Your task to perform on an android device: see creations saved in the google photos Image 0: 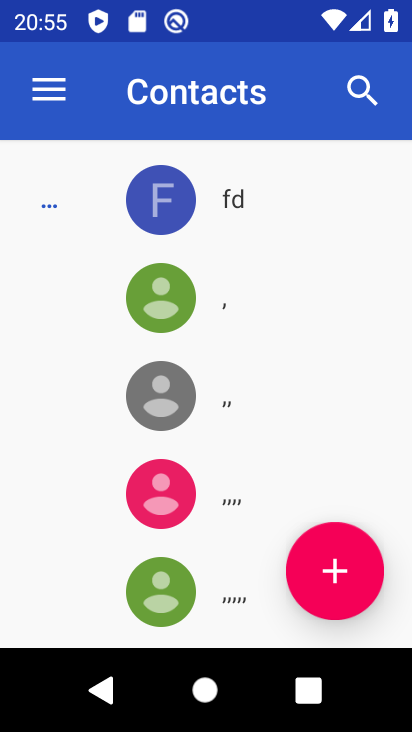
Step 0: press home button
Your task to perform on an android device: see creations saved in the google photos Image 1: 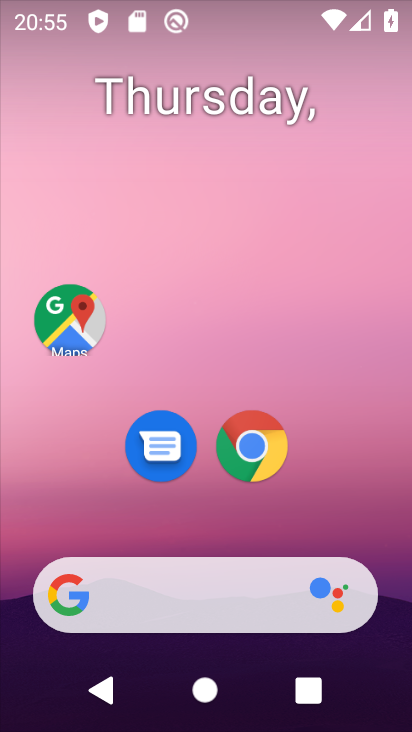
Step 1: drag from (378, 466) to (304, 164)
Your task to perform on an android device: see creations saved in the google photos Image 2: 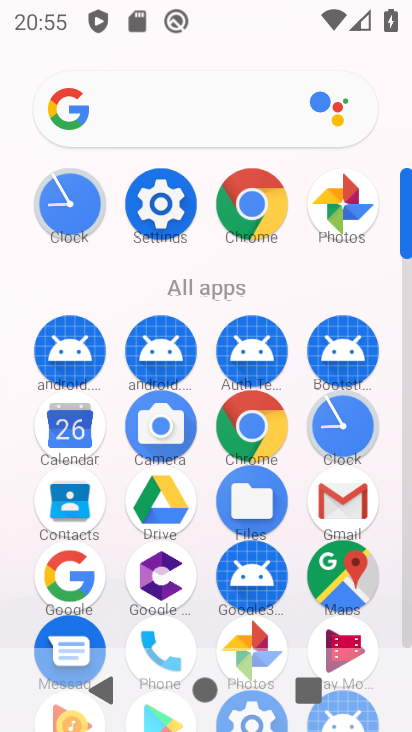
Step 2: click (408, 637)
Your task to perform on an android device: see creations saved in the google photos Image 3: 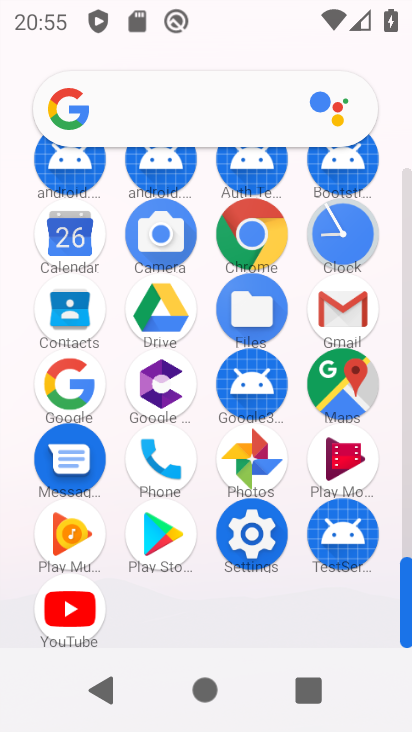
Step 3: click (265, 448)
Your task to perform on an android device: see creations saved in the google photos Image 4: 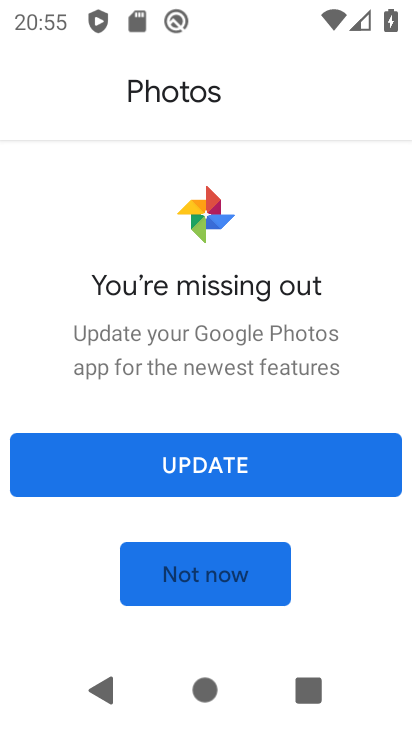
Step 4: click (269, 469)
Your task to perform on an android device: see creations saved in the google photos Image 5: 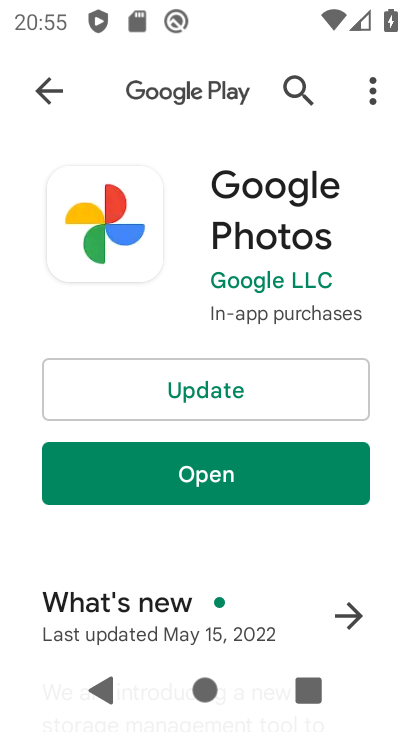
Step 5: click (246, 376)
Your task to perform on an android device: see creations saved in the google photos Image 6: 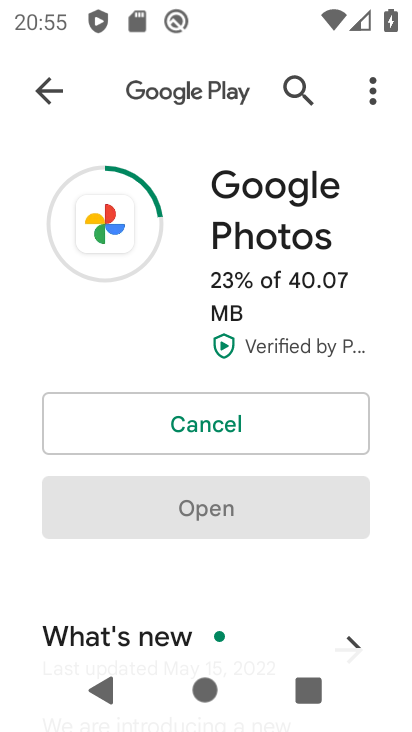
Step 6: drag from (233, 564) to (342, 65)
Your task to perform on an android device: see creations saved in the google photos Image 7: 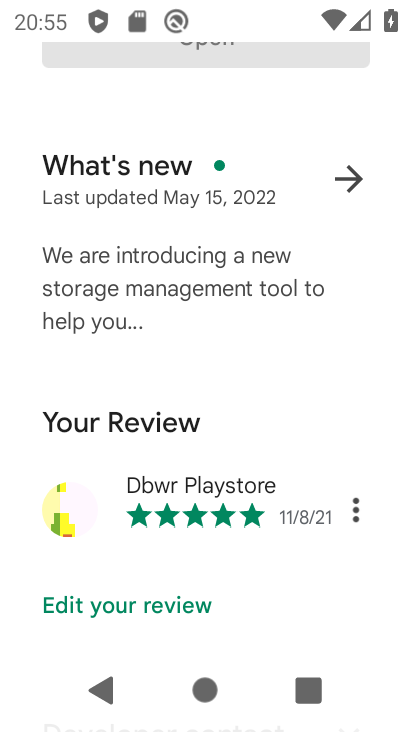
Step 7: drag from (259, 410) to (312, 27)
Your task to perform on an android device: see creations saved in the google photos Image 8: 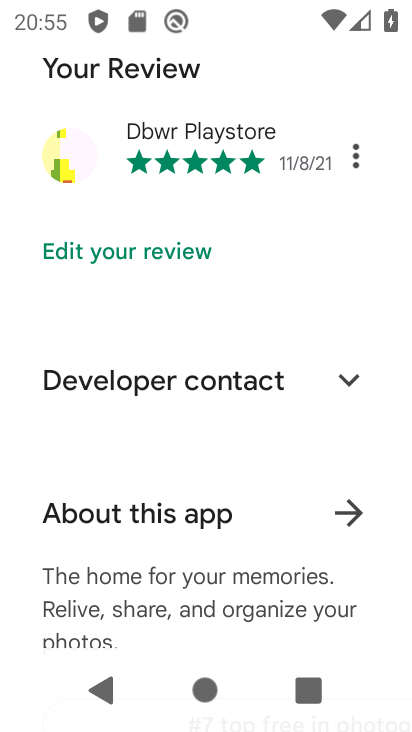
Step 8: drag from (294, 133) to (303, 711)
Your task to perform on an android device: see creations saved in the google photos Image 9: 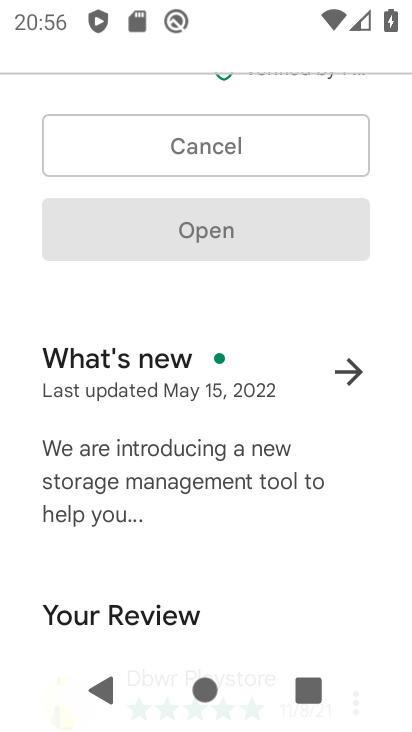
Step 9: drag from (257, 345) to (230, 701)
Your task to perform on an android device: see creations saved in the google photos Image 10: 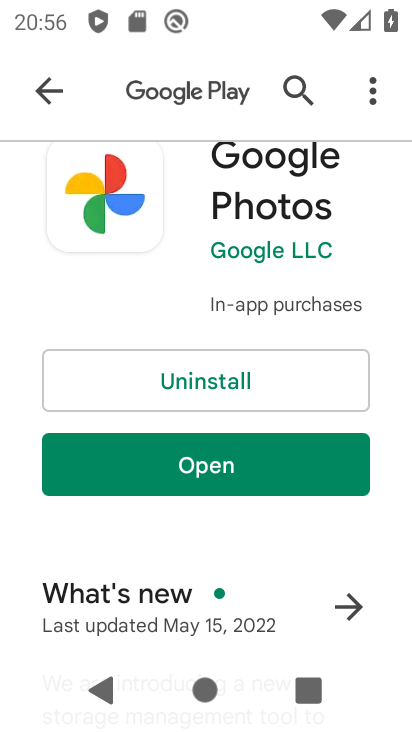
Step 10: click (216, 481)
Your task to perform on an android device: see creations saved in the google photos Image 11: 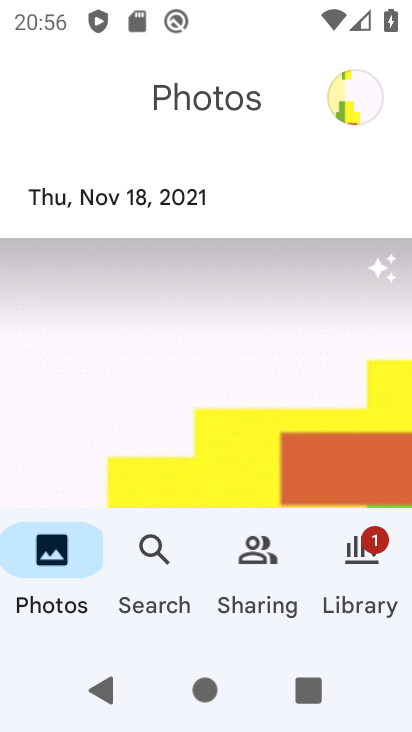
Step 11: click (358, 94)
Your task to perform on an android device: see creations saved in the google photos Image 12: 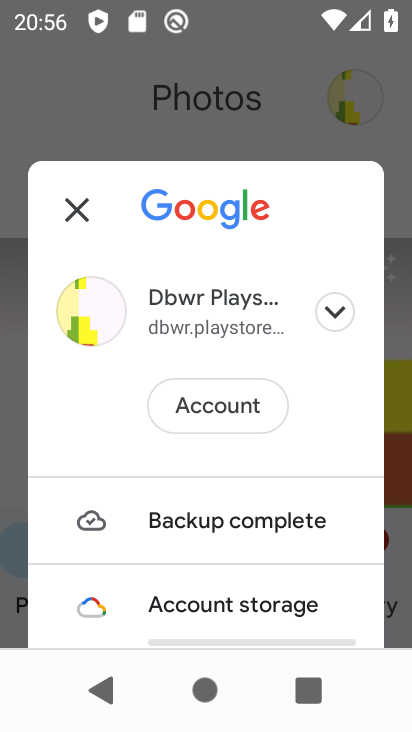
Step 12: click (248, 83)
Your task to perform on an android device: see creations saved in the google photos Image 13: 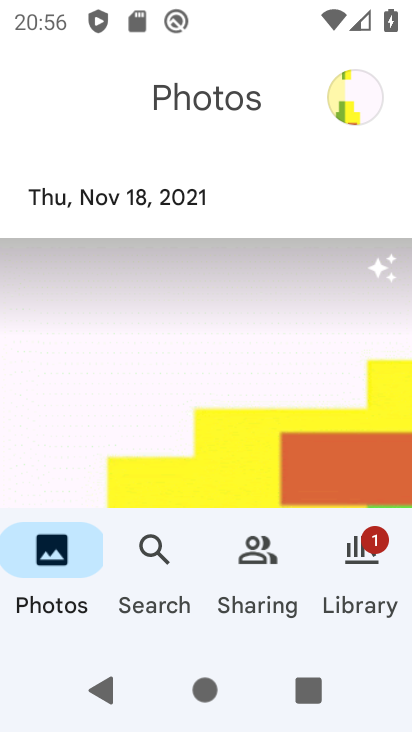
Step 13: click (165, 548)
Your task to perform on an android device: see creations saved in the google photos Image 14: 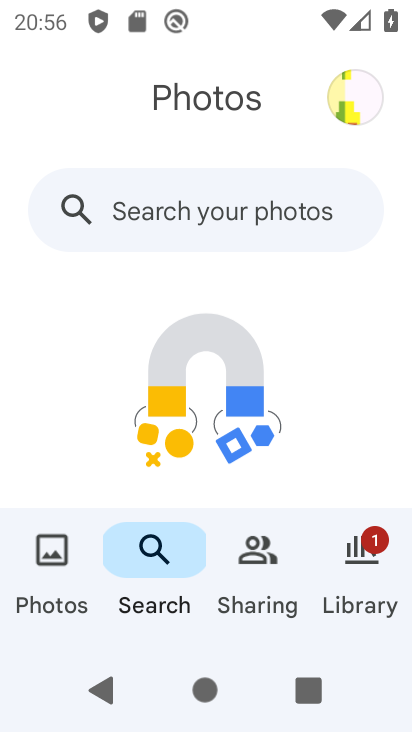
Step 14: click (286, 208)
Your task to perform on an android device: see creations saved in the google photos Image 15: 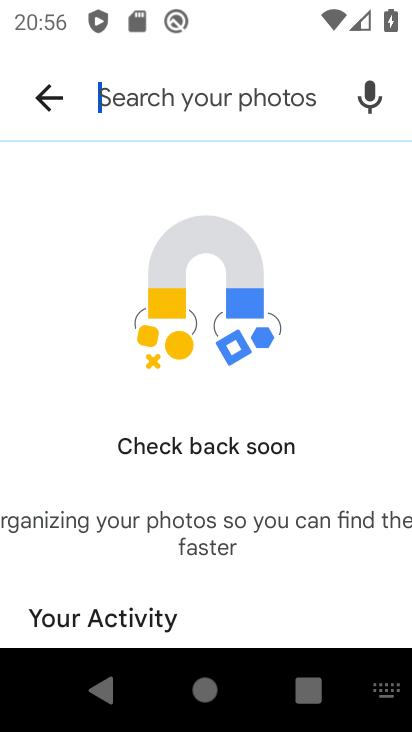
Step 15: drag from (99, 475) to (284, 14)
Your task to perform on an android device: see creations saved in the google photos Image 16: 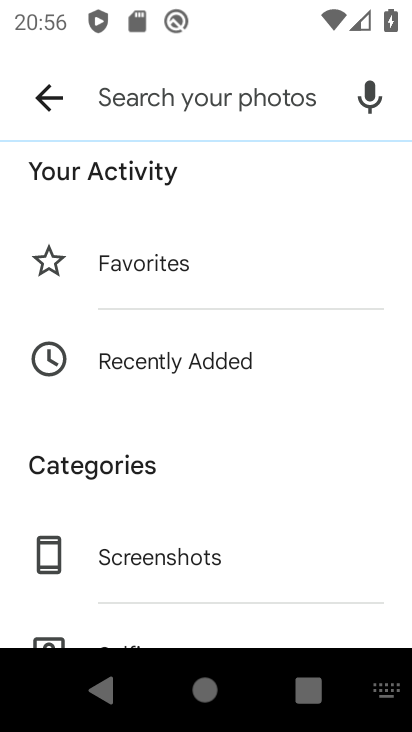
Step 16: drag from (132, 454) to (254, 187)
Your task to perform on an android device: see creations saved in the google photos Image 17: 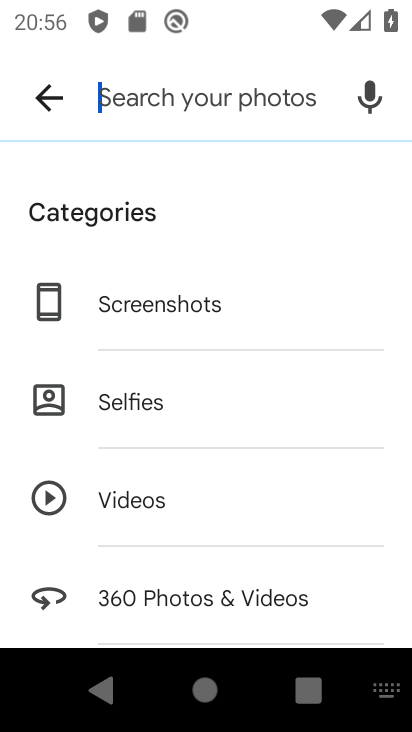
Step 17: drag from (204, 492) to (303, 256)
Your task to perform on an android device: see creations saved in the google photos Image 18: 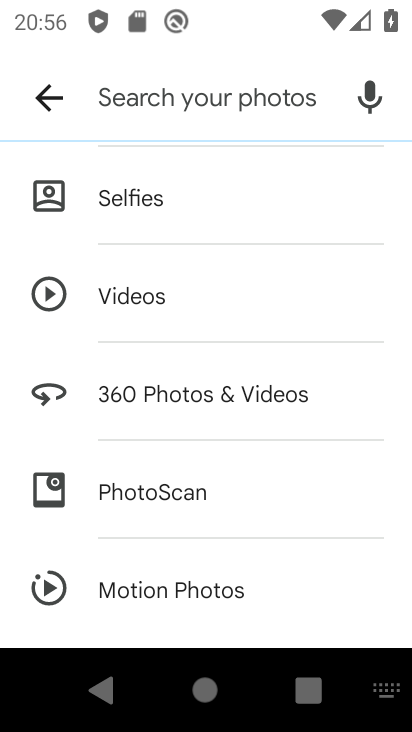
Step 18: drag from (187, 469) to (335, 302)
Your task to perform on an android device: see creations saved in the google photos Image 19: 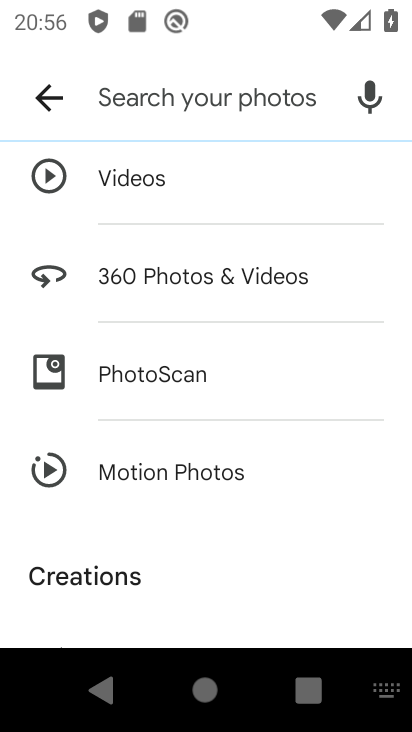
Step 19: drag from (208, 302) to (232, 262)
Your task to perform on an android device: see creations saved in the google photos Image 20: 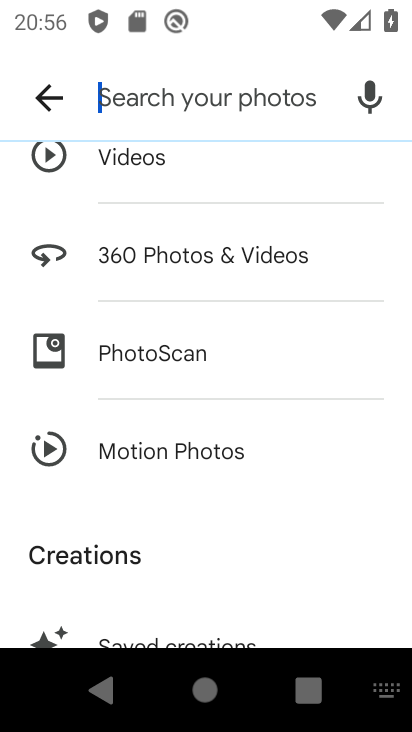
Step 20: drag from (60, 535) to (351, 104)
Your task to perform on an android device: see creations saved in the google photos Image 21: 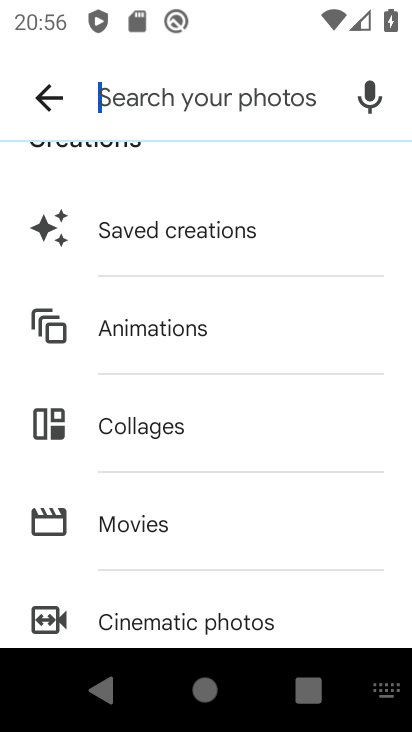
Step 21: click (180, 246)
Your task to perform on an android device: see creations saved in the google photos Image 22: 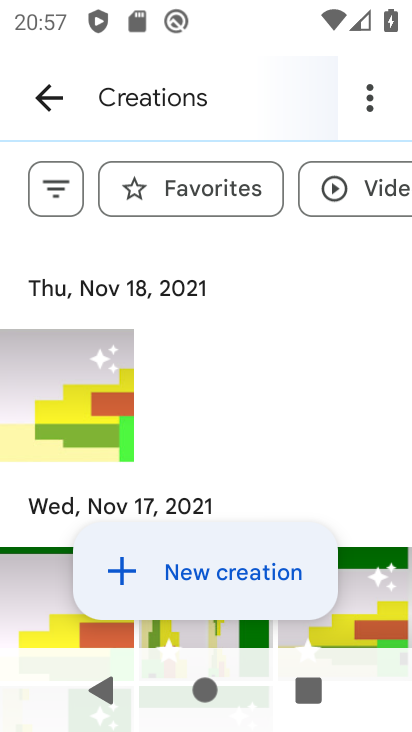
Step 22: task complete